Your task to perform on an android device: toggle sleep mode Image 0: 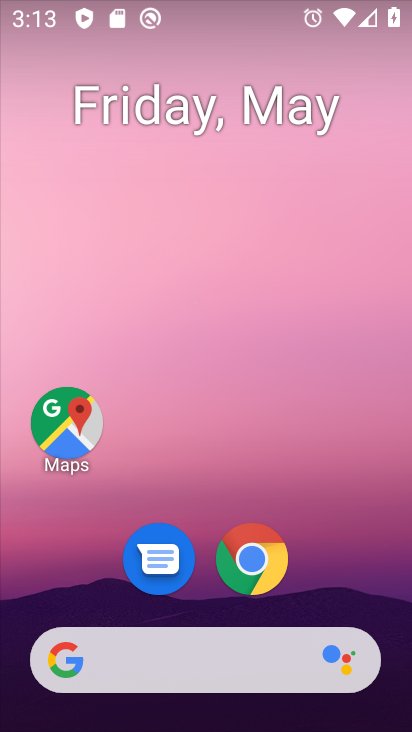
Step 0: drag from (361, 592) to (256, 61)
Your task to perform on an android device: toggle sleep mode Image 1: 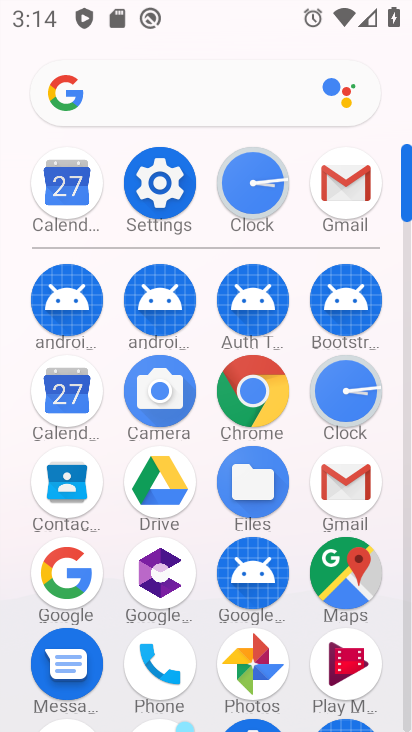
Step 1: click (172, 191)
Your task to perform on an android device: toggle sleep mode Image 2: 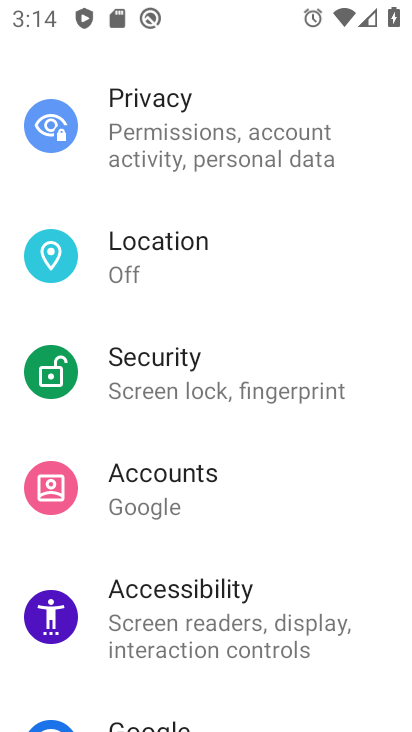
Step 2: drag from (221, 242) to (284, 622)
Your task to perform on an android device: toggle sleep mode Image 3: 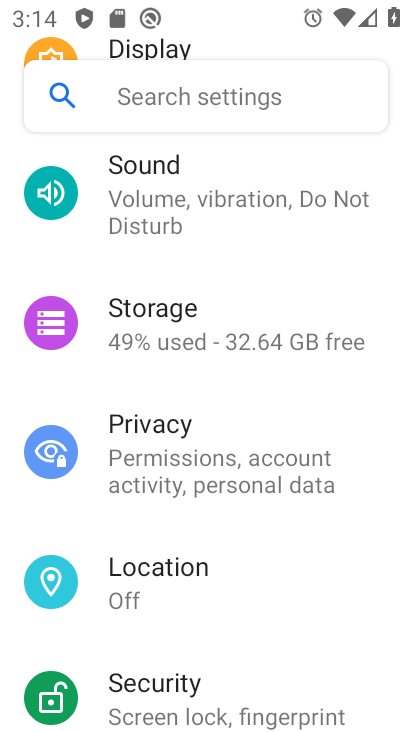
Step 3: drag from (259, 238) to (388, 613)
Your task to perform on an android device: toggle sleep mode Image 4: 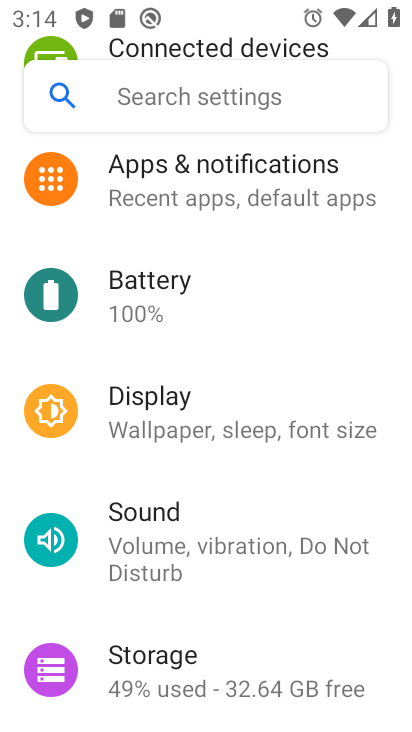
Step 4: click (286, 425)
Your task to perform on an android device: toggle sleep mode Image 5: 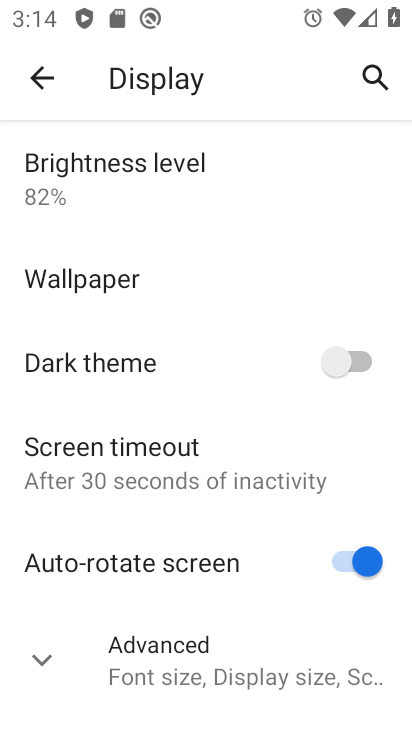
Step 5: click (132, 451)
Your task to perform on an android device: toggle sleep mode Image 6: 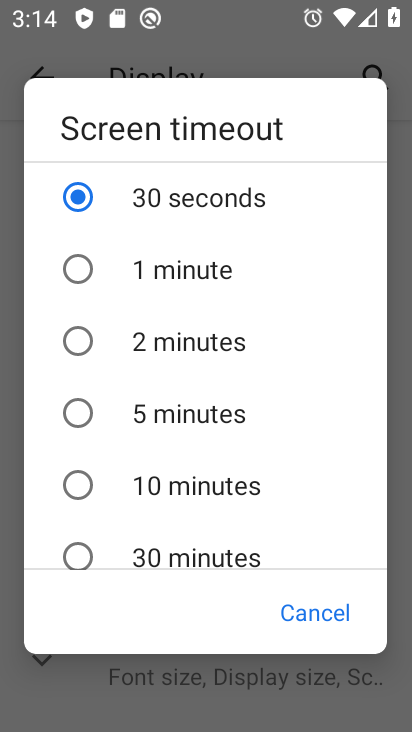
Step 6: drag from (208, 217) to (315, 459)
Your task to perform on an android device: toggle sleep mode Image 7: 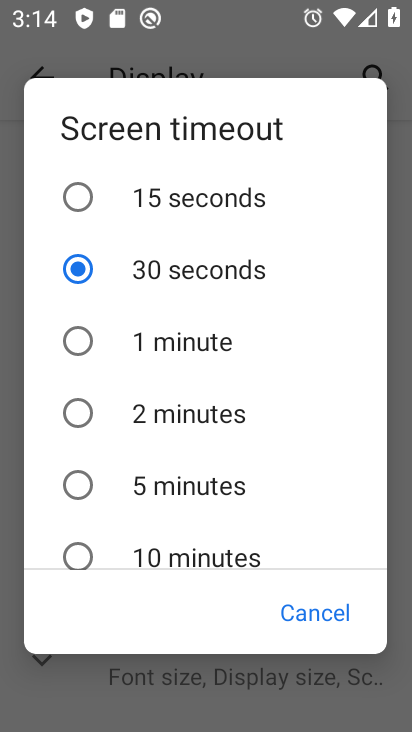
Step 7: click (268, 203)
Your task to perform on an android device: toggle sleep mode Image 8: 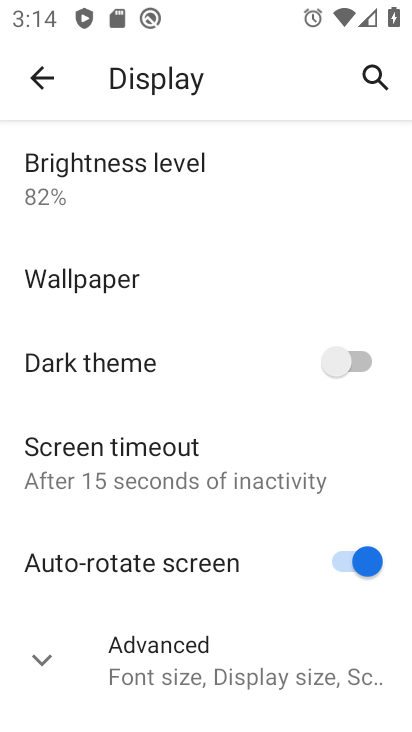
Step 8: task complete